Your task to perform on an android device: turn on data saver in the chrome app Image 0: 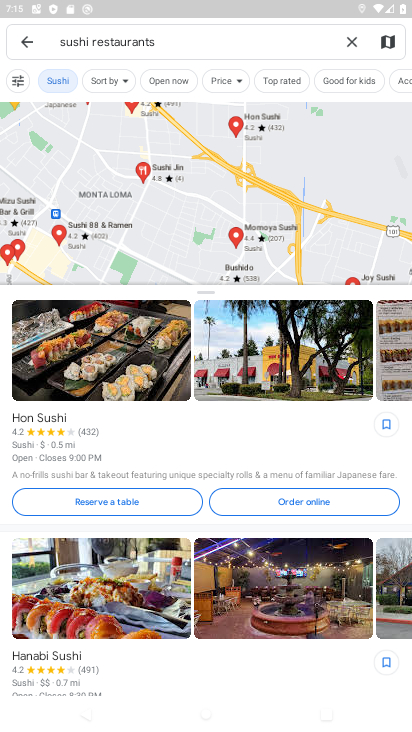
Step 0: press home button
Your task to perform on an android device: turn on data saver in the chrome app Image 1: 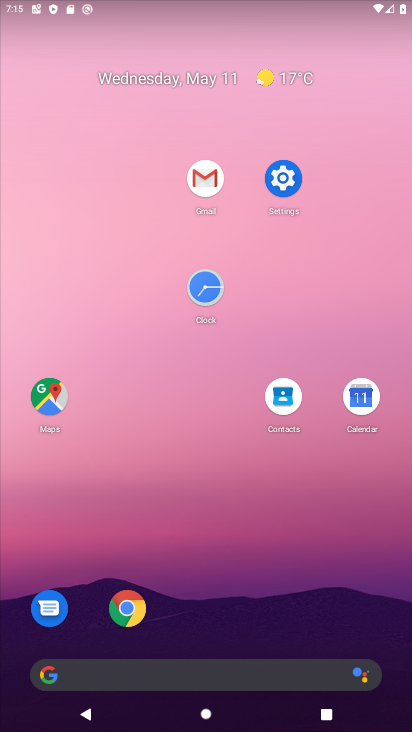
Step 1: click (117, 623)
Your task to perform on an android device: turn on data saver in the chrome app Image 2: 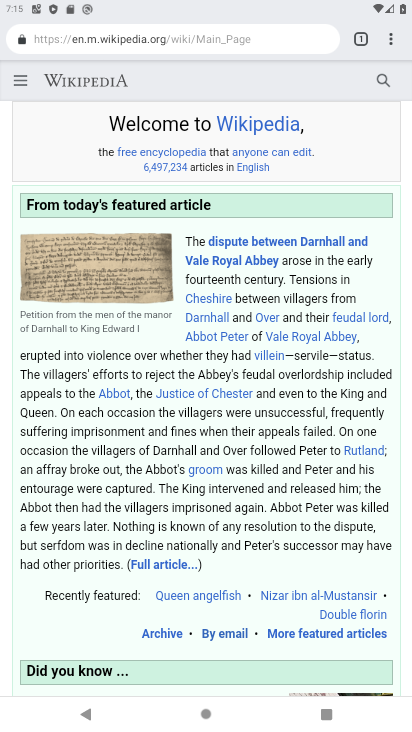
Step 2: click (390, 38)
Your task to perform on an android device: turn on data saver in the chrome app Image 3: 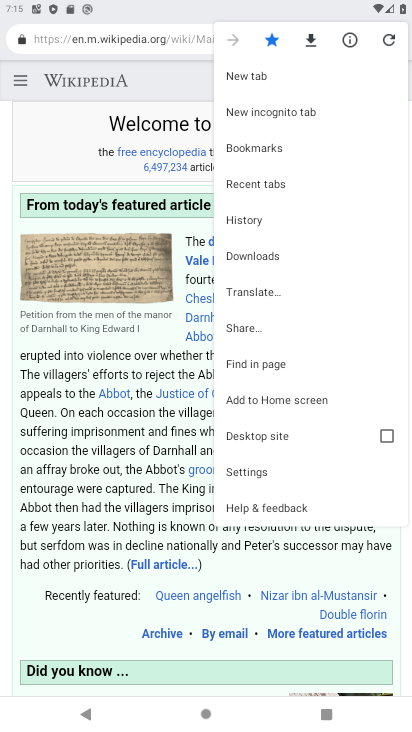
Step 3: click (292, 479)
Your task to perform on an android device: turn on data saver in the chrome app Image 4: 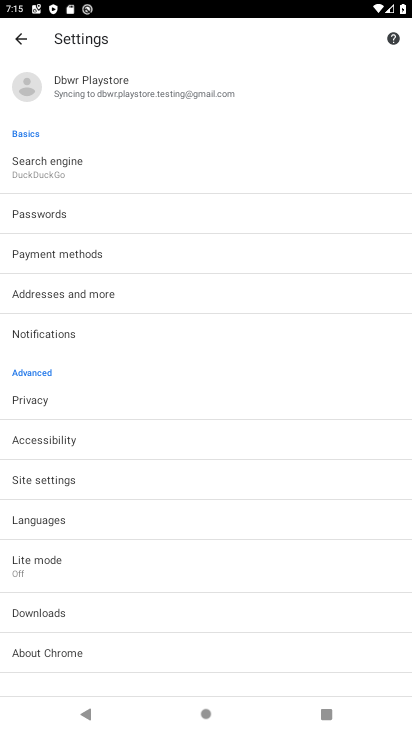
Step 4: click (218, 573)
Your task to perform on an android device: turn on data saver in the chrome app Image 5: 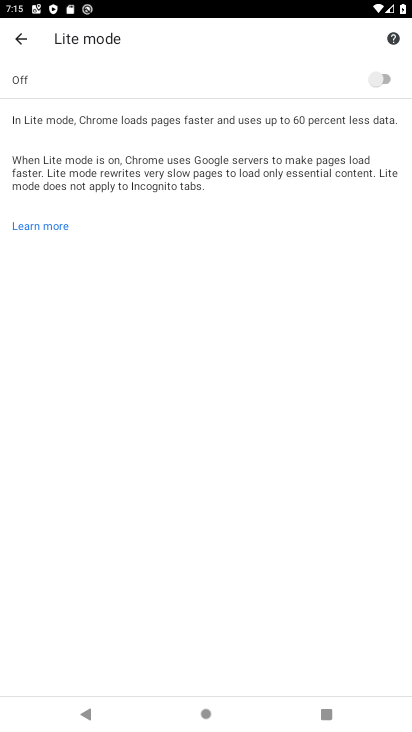
Step 5: click (377, 77)
Your task to perform on an android device: turn on data saver in the chrome app Image 6: 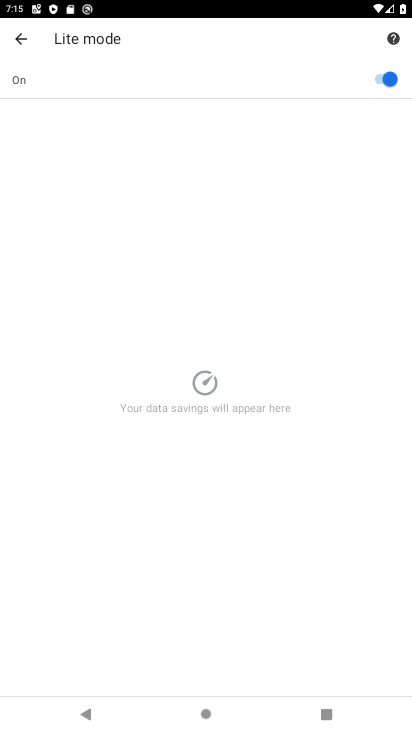
Step 6: task complete